Your task to perform on an android device: Go to internet settings Image 0: 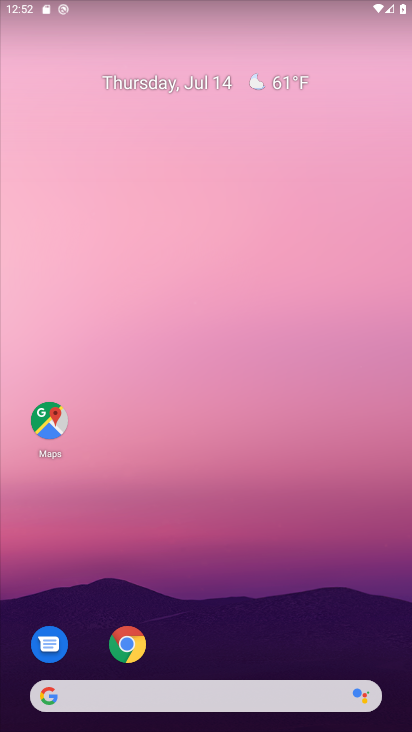
Step 0: drag from (243, 448) to (243, 316)
Your task to perform on an android device: Go to internet settings Image 1: 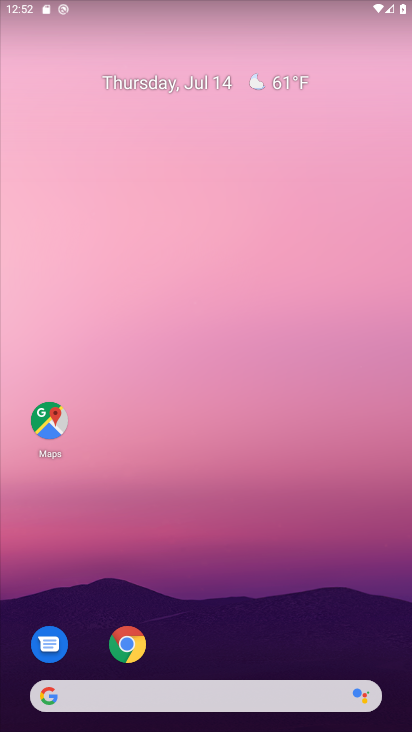
Step 1: drag from (240, 532) to (289, 86)
Your task to perform on an android device: Go to internet settings Image 2: 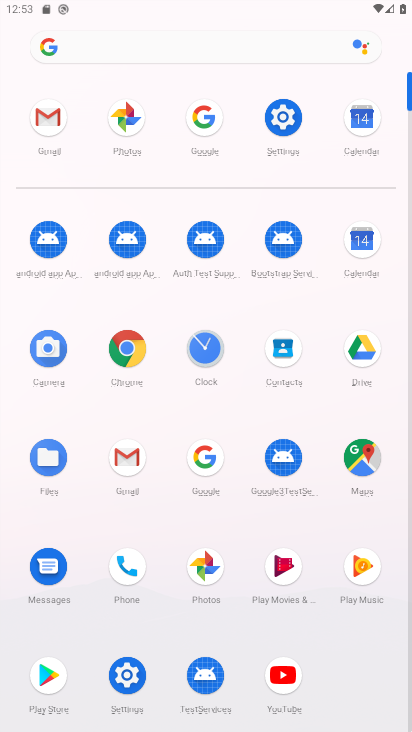
Step 2: click (289, 108)
Your task to perform on an android device: Go to internet settings Image 3: 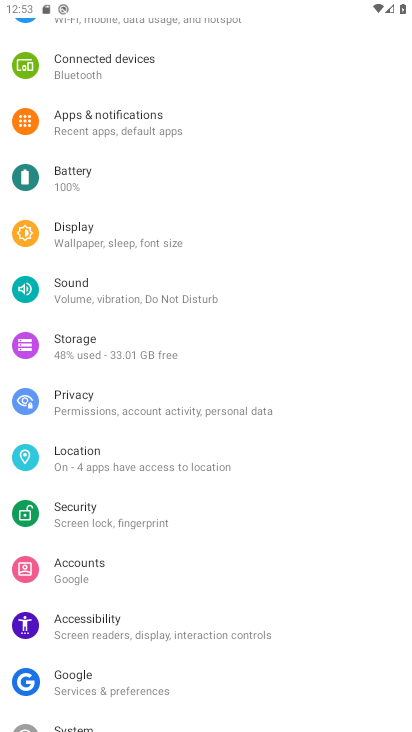
Step 3: click (134, 29)
Your task to perform on an android device: Go to internet settings Image 4: 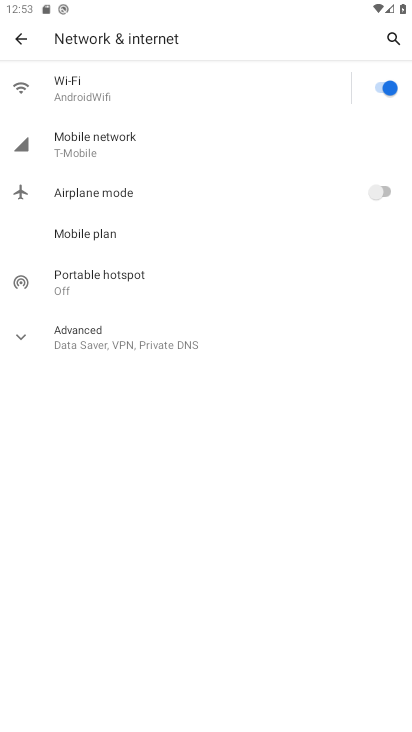
Step 4: click (110, 146)
Your task to perform on an android device: Go to internet settings Image 5: 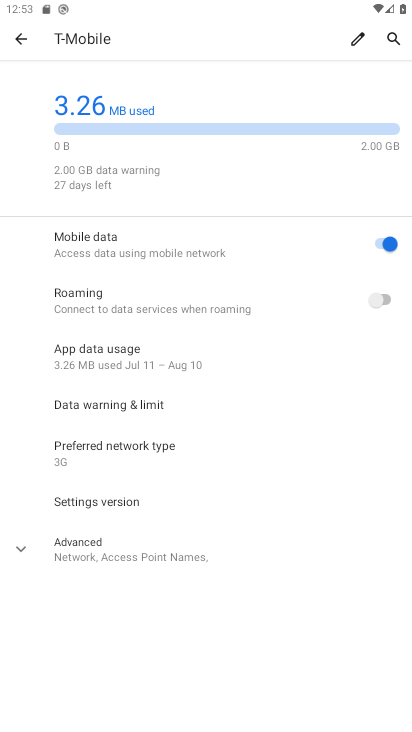
Step 5: task complete